Your task to perform on an android device: Go to CNN.com Image 0: 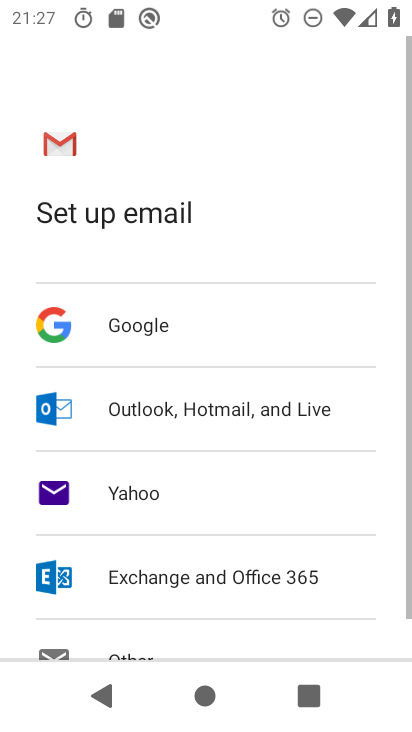
Step 0: press home button
Your task to perform on an android device: Go to CNN.com Image 1: 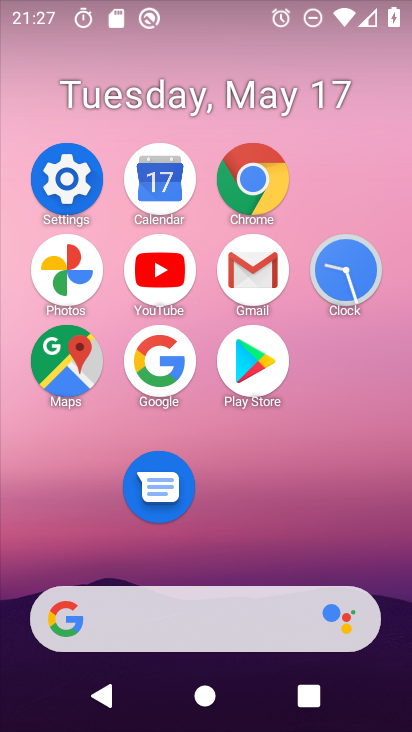
Step 1: click (248, 192)
Your task to perform on an android device: Go to CNN.com Image 2: 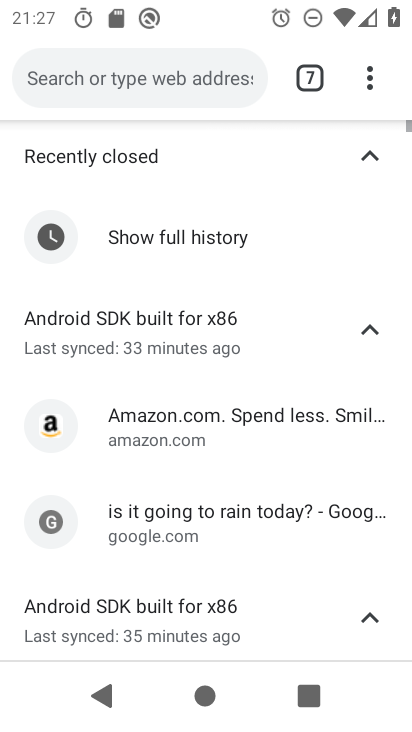
Step 2: click (308, 83)
Your task to perform on an android device: Go to CNN.com Image 3: 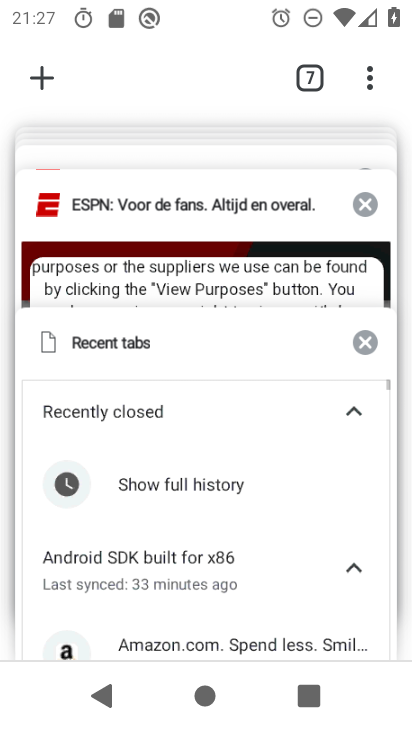
Step 3: drag from (214, 257) to (220, 512)
Your task to perform on an android device: Go to CNN.com Image 4: 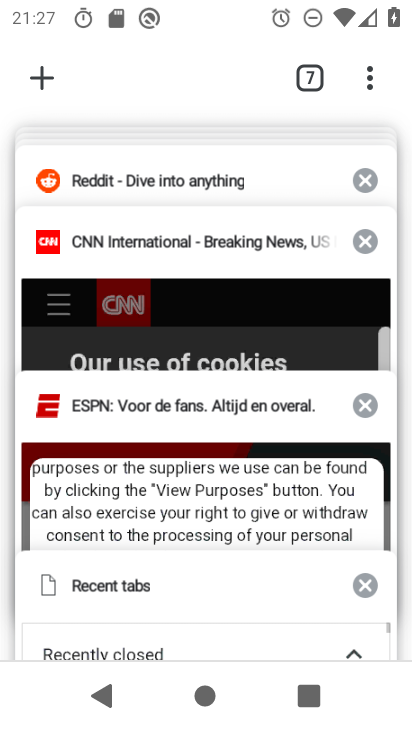
Step 4: click (189, 315)
Your task to perform on an android device: Go to CNN.com Image 5: 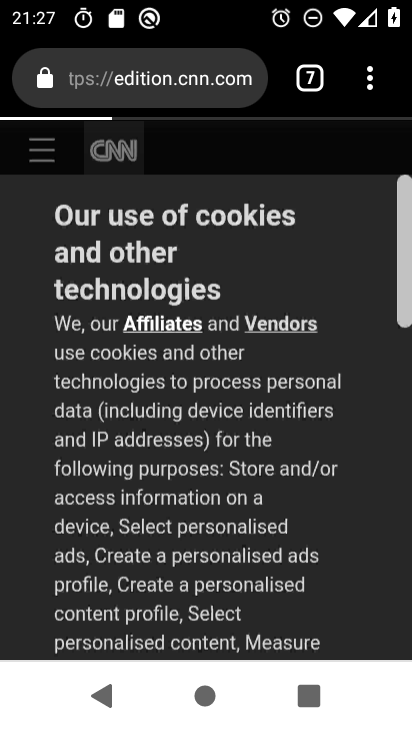
Step 5: task complete